Your task to perform on an android device: check the backup settings in the google photos Image 0: 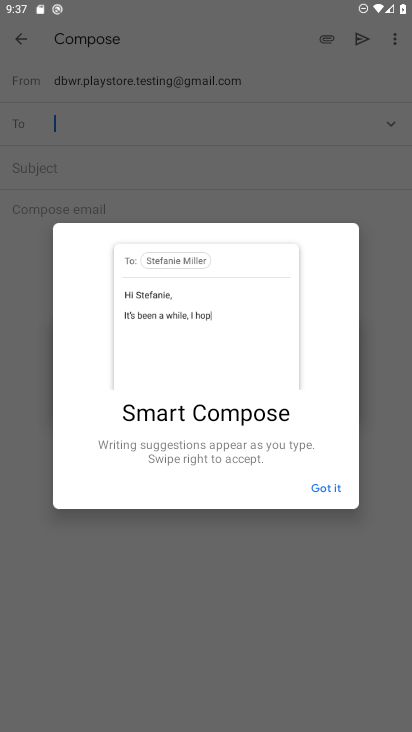
Step 0: press back button
Your task to perform on an android device: check the backup settings in the google photos Image 1: 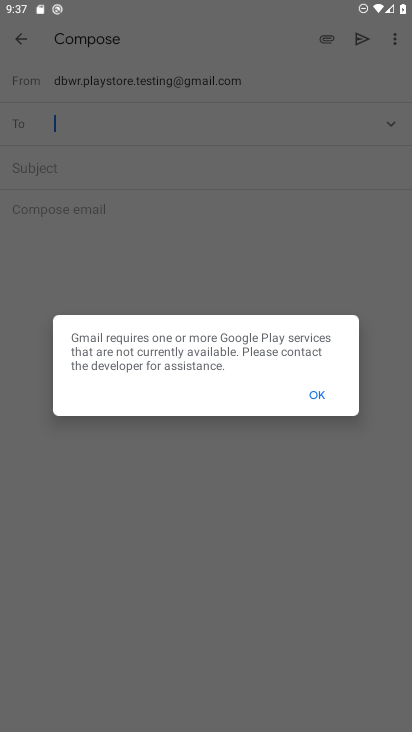
Step 1: press home button
Your task to perform on an android device: check the backup settings in the google photos Image 2: 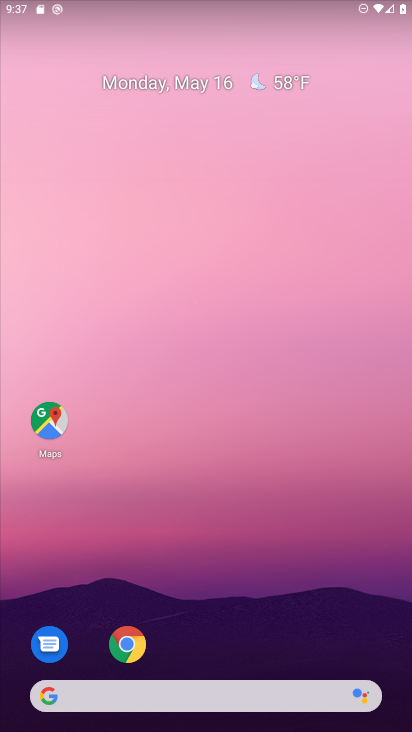
Step 2: drag from (178, 695) to (58, 26)
Your task to perform on an android device: check the backup settings in the google photos Image 3: 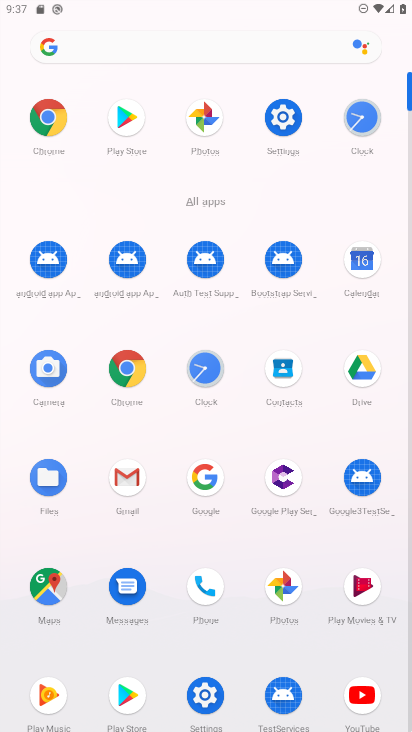
Step 3: click (292, 592)
Your task to perform on an android device: check the backup settings in the google photos Image 4: 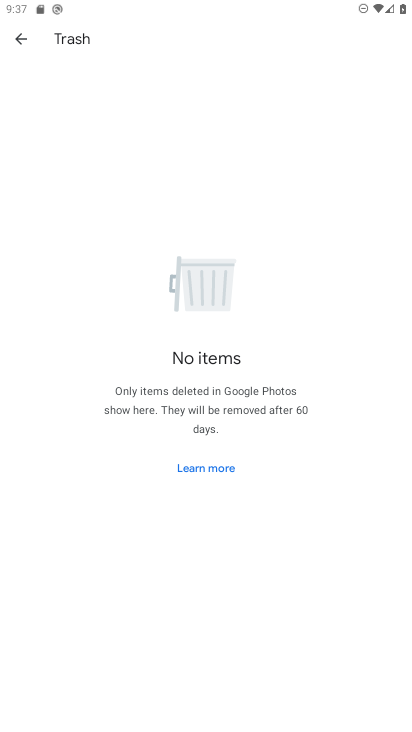
Step 4: click (14, 37)
Your task to perform on an android device: check the backup settings in the google photos Image 5: 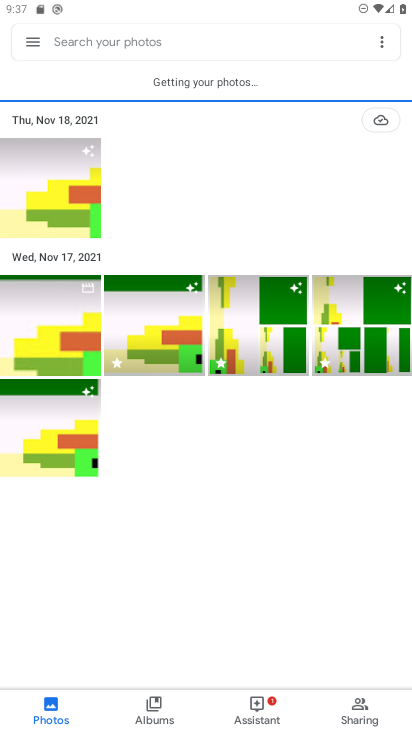
Step 5: click (14, 37)
Your task to perform on an android device: check the backup settings in the google photos Image 6: 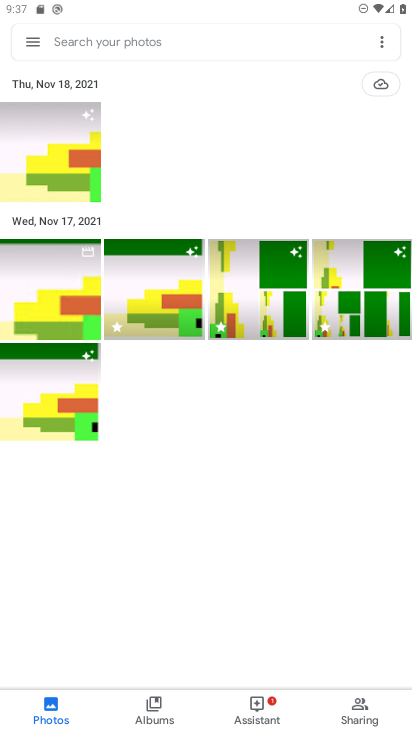
Step 6: click (38, 43)
Your task to perform on an android device: check the backup settings in the google photos Image 7: 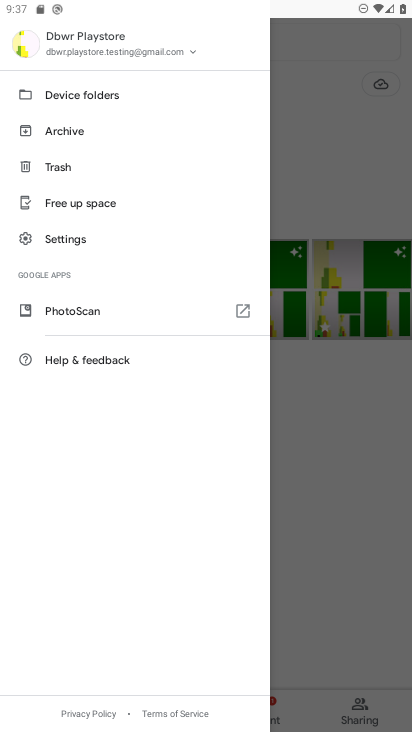
Step 7: click (77, 247)
Your task to perform on an android device: check the backup settings in the google photos Image 8: 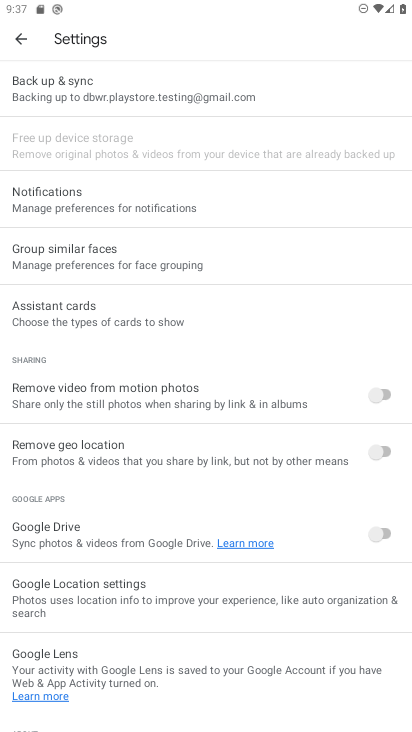
Step 8: click (66, 104)
Your task to perform on an android device: check the backup settings in the google photos Image 9: 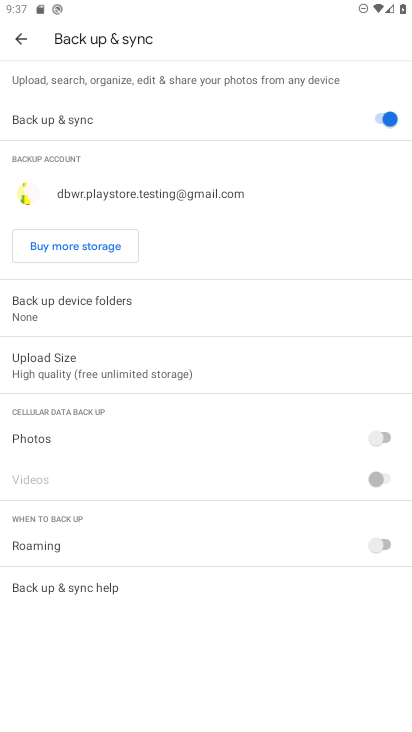
Step 9: click (92, 372)
Your task to perform on an android device: check the backup settings in the google photos Image 10: 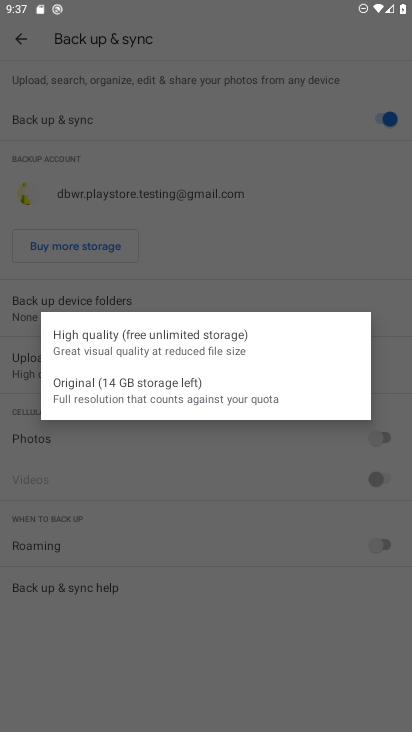
Step 10: click (117, 671)
Your task to perform on an android device: check the backup settings in the google photos Image 11: 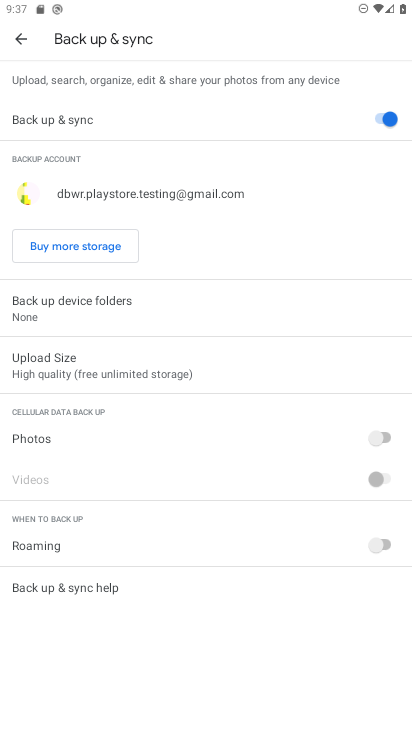
Step 11: task complete